Your task to perform on an android device: create a new album in the google photos Image 0: 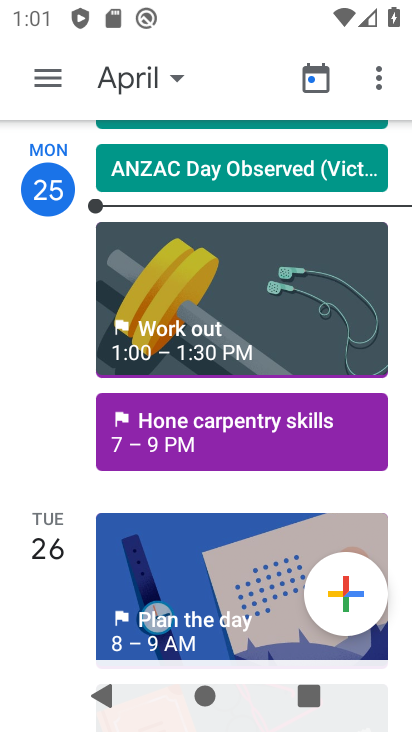
Step 0: press home button
Your task to perform on an android device: create a new album in the google photos Image 1: 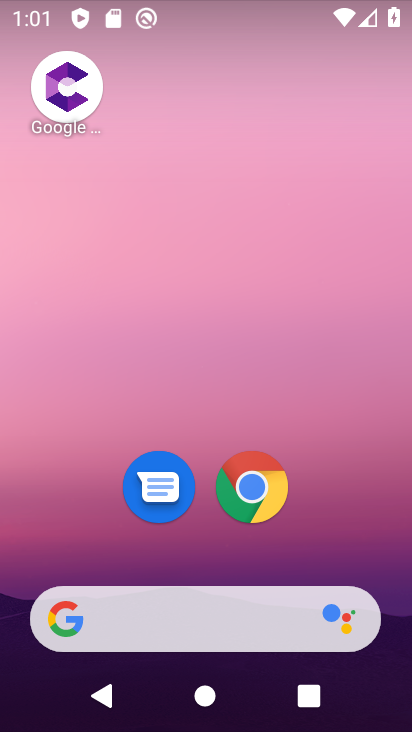
Step 1: drag from (353, 450) to (306, 85)
Your task to perform on an android device: create a new album in the google photos Image 2: 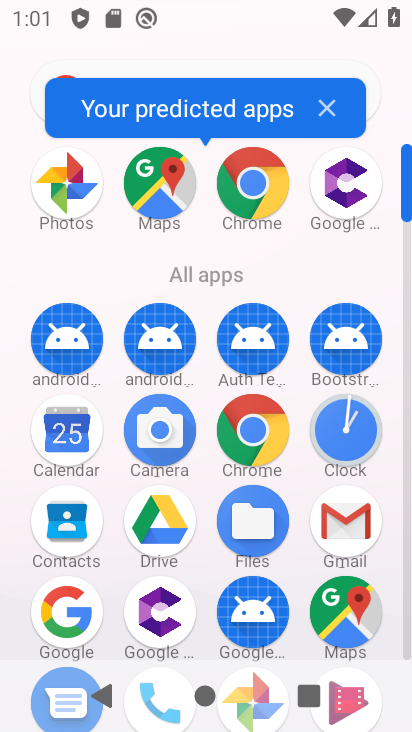
Step 2: click (72, 205)
Your task to perform on an android device: create a new album in the google photos Image 3: 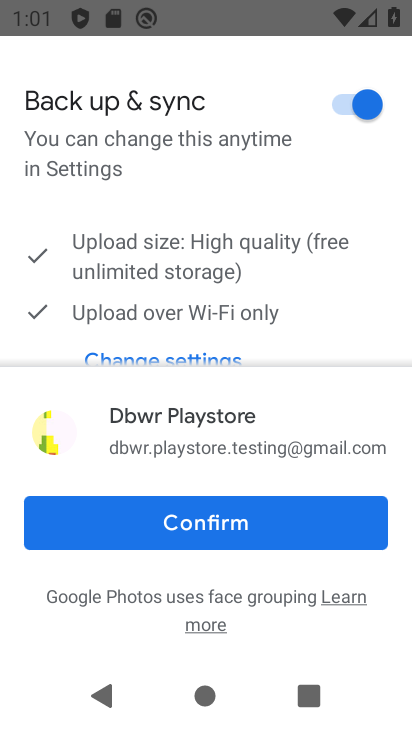
Step 3: click (201, 503)
Your task to perform on an android device: create a new album in the google photos Image 4: 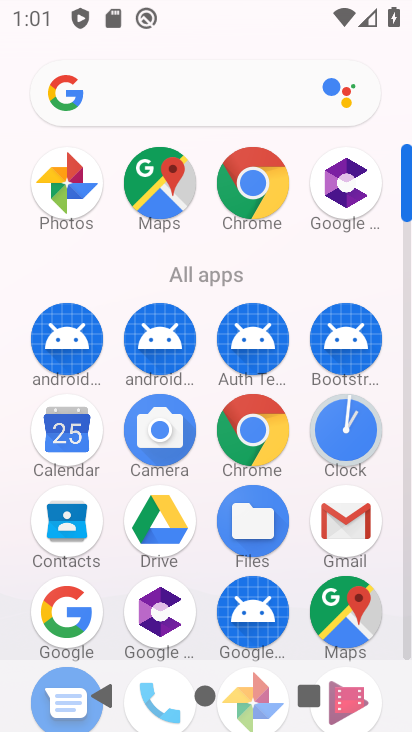
Step 4: click (50, 215)
Your task to perform on an android device: create a new album in the google photos Image 5: 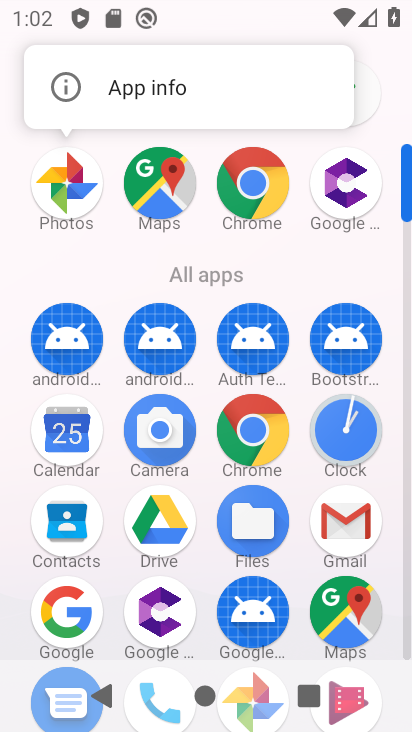
Step 5: click (49, 226)
Your task to perform on an android device: create a new album in the google photos Image 6: 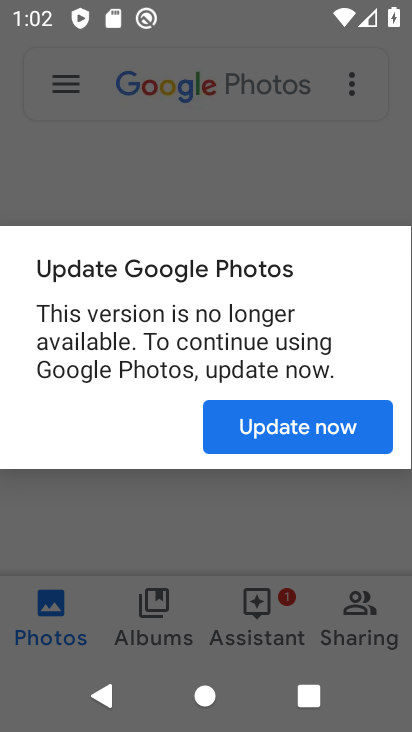
Step 6: click (276, 424)
Your task to perform on an android device: create a new album in the google photos Image 7: 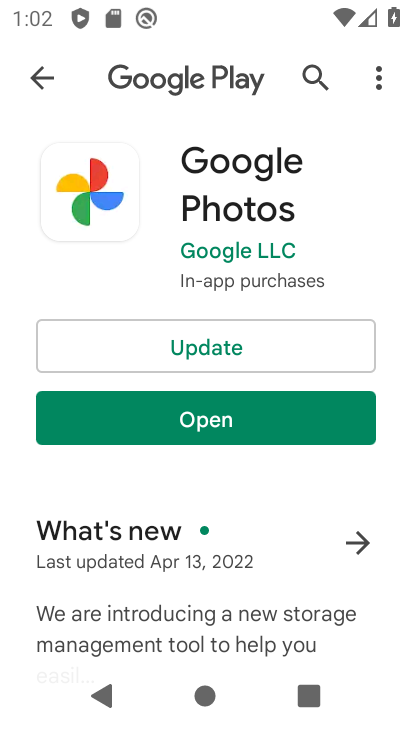
Step 7: click (223, 425)
Your task to perform on an android device: create a new album in the google photos Image 8: 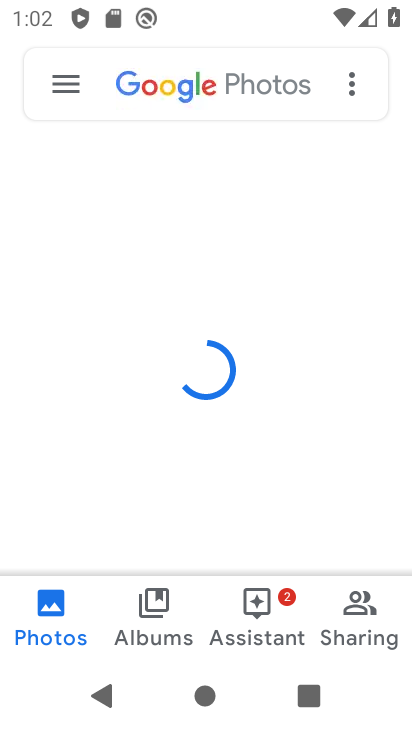
Step 8: drag from (265, 446) to (262, 380)
Your task to perform on an android device: create a new album in the google photos Image 9: 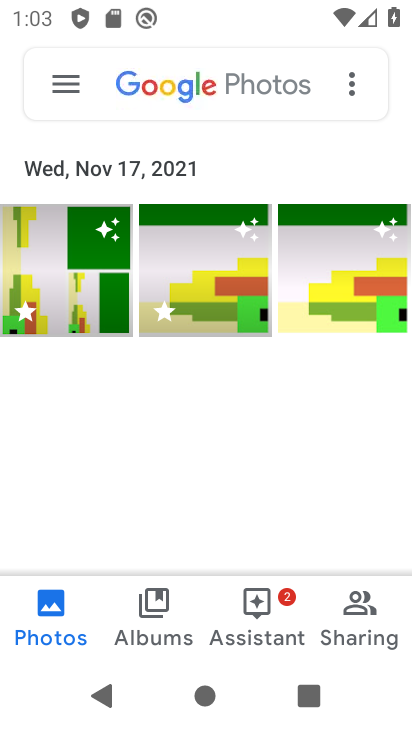
Step 9: click (87, 288)
Your task to perform on an android device: create a new album in the google photos Image 10: 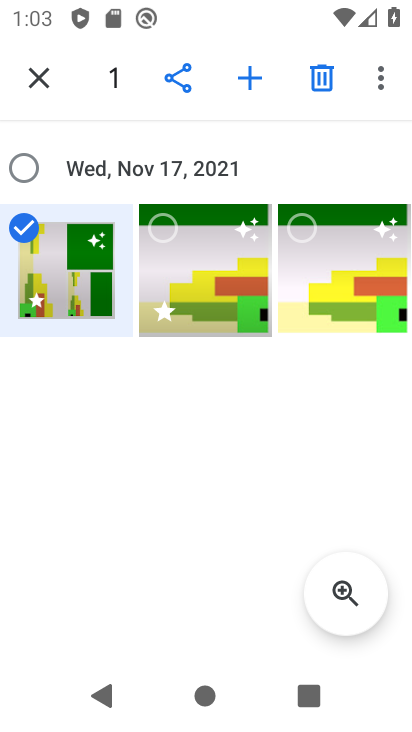
Step 10: click (244, 80)
Your task to perform on an android device: create a new album in the google photos Image 11: 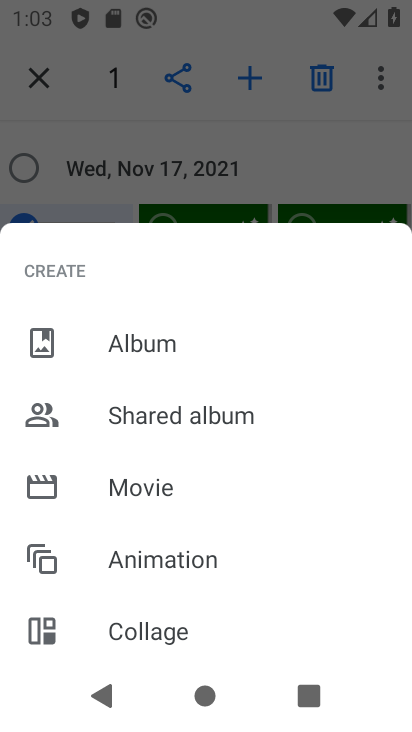
Step 11: drag from (200, 589) to (170, 355)
Your task to perform on an android device: create a new album in the google photos Image 12: 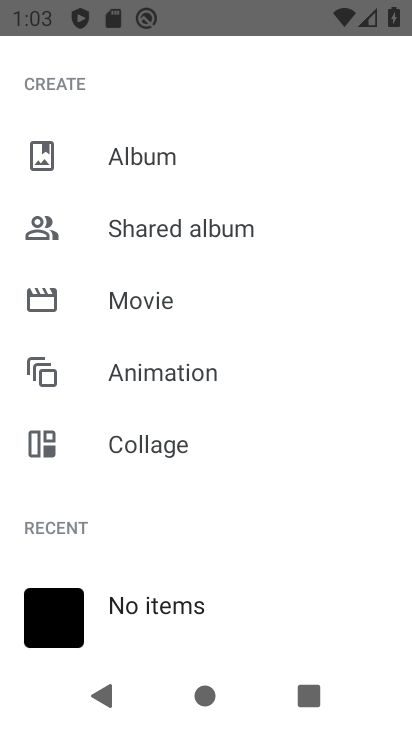
Step 12: drag from (196, 610) to (165, 694)
Your task to perform on an android device: create a new album in the google photos Image 13: 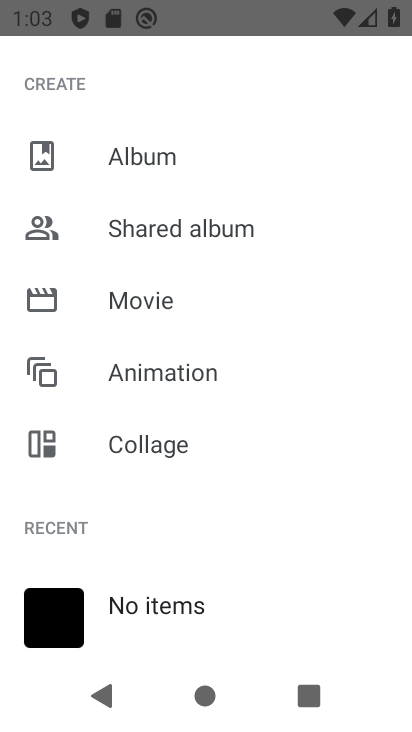
Step 13: click (144, 159)
Your task to perform on an android device: create a new album in the google photos Image 14: 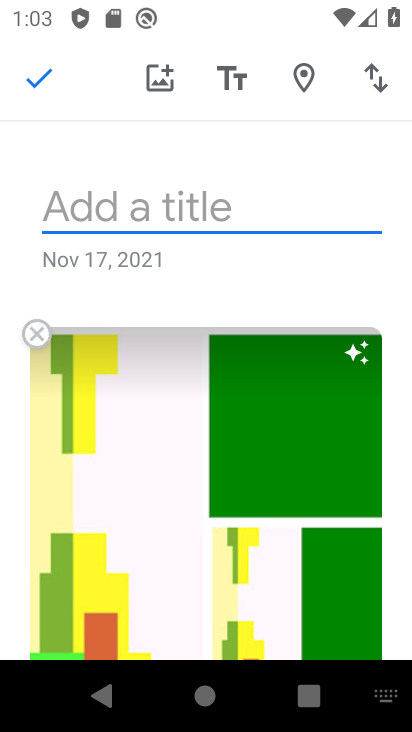
Step 14: type "brtrbrrb"
Your task to perform on an android device: create a new album in the google photos Image 15: 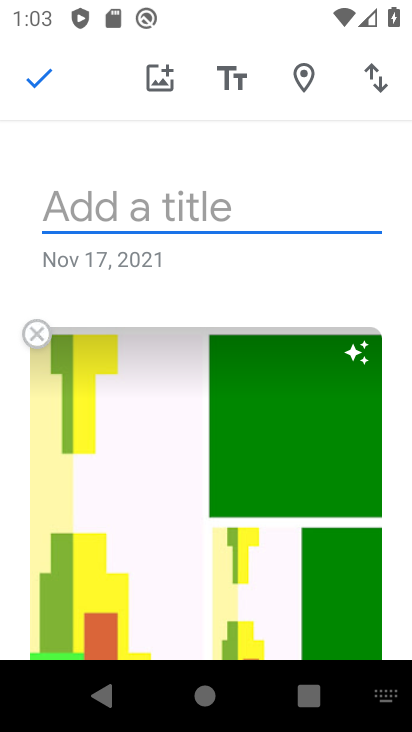
Step 15: click (41, 81)
Your task to perform on an android device: create a new album in the google photos Image 16: 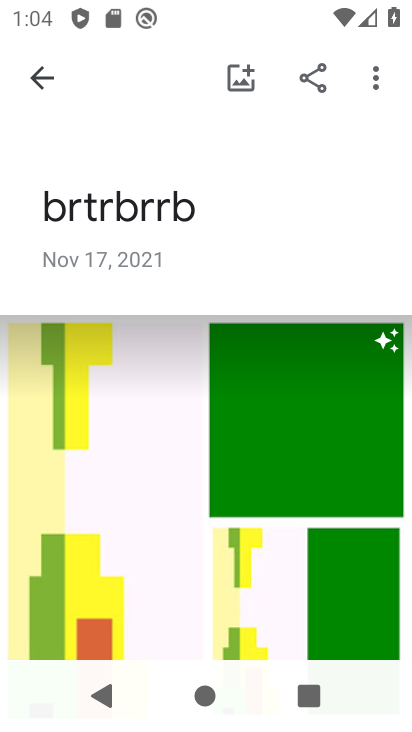
Step 16: task complete